Your task to perform on an android device: Go to accessibility settings Image 0: 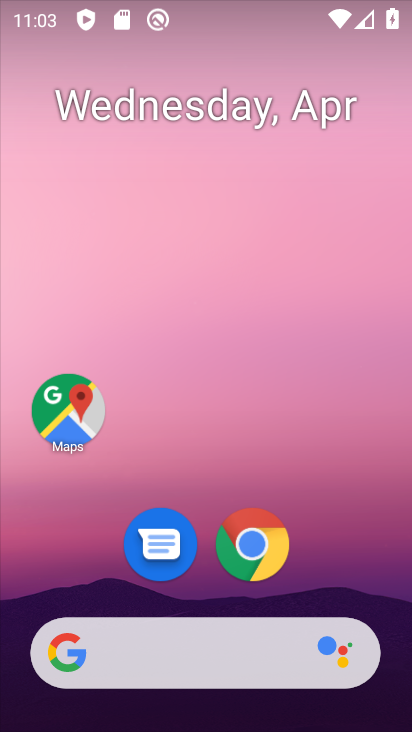
Step 0: drag from (194, 601) to (336, 47)
Your task to perform on an android device: Go to accessibility settings Image 1: 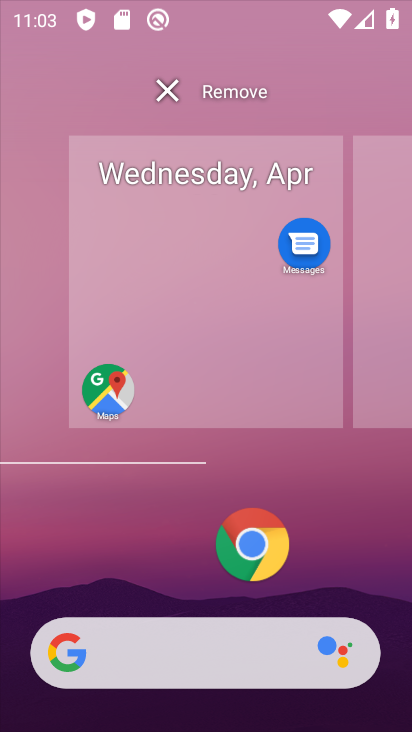
Step 1: drag from (205, 596) to (355, 89)
Your task to perform on an android device: Go to accessibility settings Image 2: 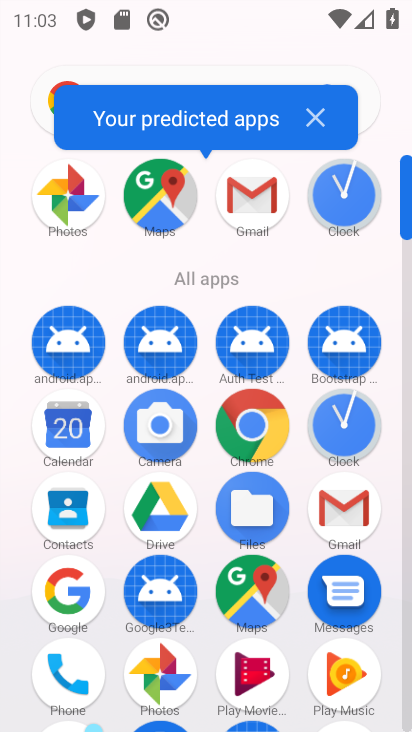
Step 2: drag from (106, 606) to (34, 139)
Your task to perform on an android device: Go to accessibility settings Image 3: 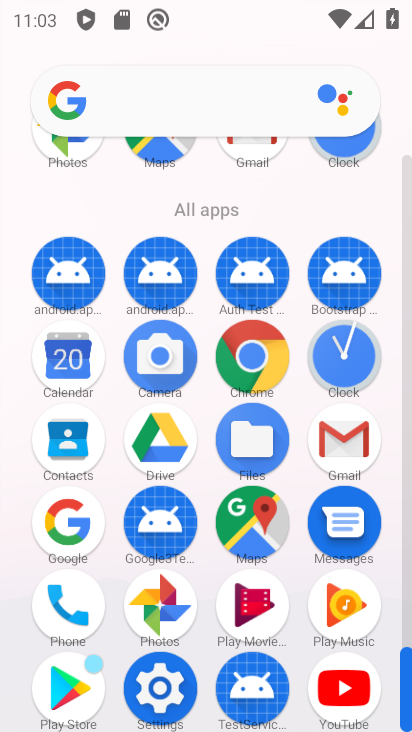
Step 3: click (156, 659)
Your task to perform on an android device: Go to accessibility settings Image 4: 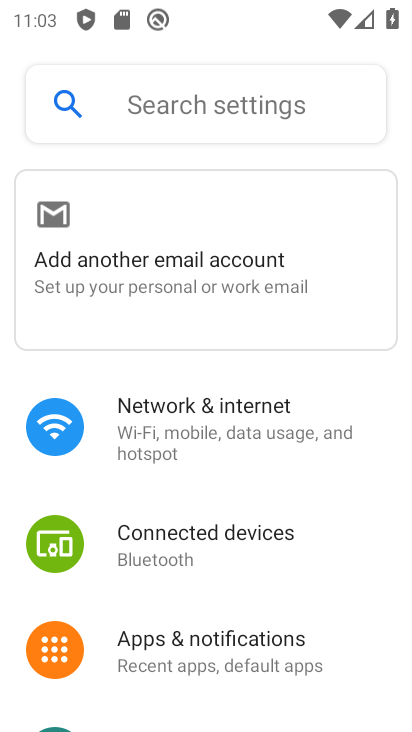
Step 4: drag from (181, 590) to (163, 49)
Your task to perform on an android device: Go to accessibility settings Image 5: 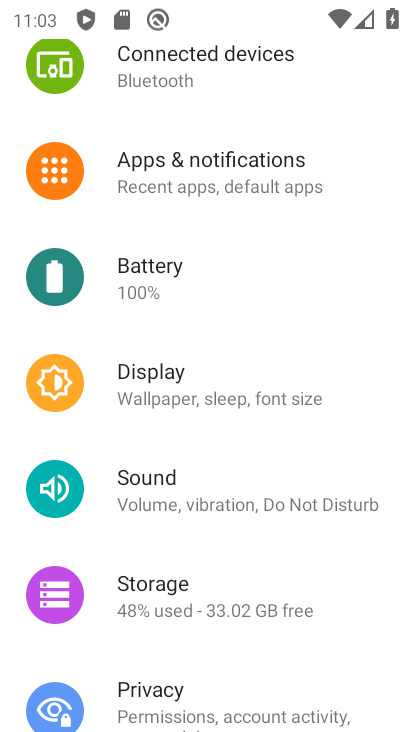
Step 5: drag from (282, 609) to (256, 136)
Your task to perform on an android device: Go to accessibility settings Image 6: 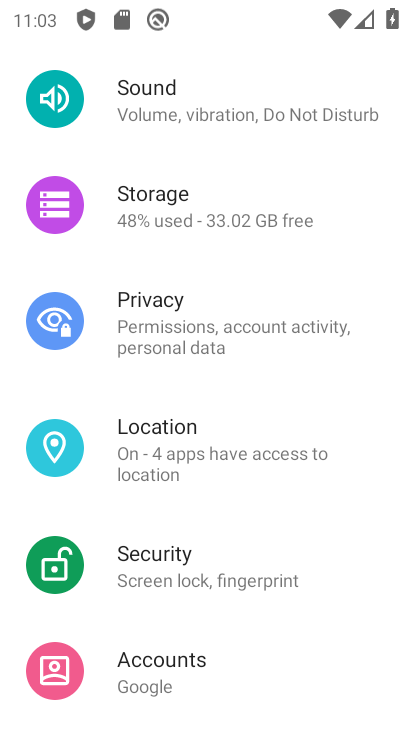
Step 6: drag from (206, 649) to (182, 149)
Your task to perform on an android device: Go to accessibility settings Image 7: 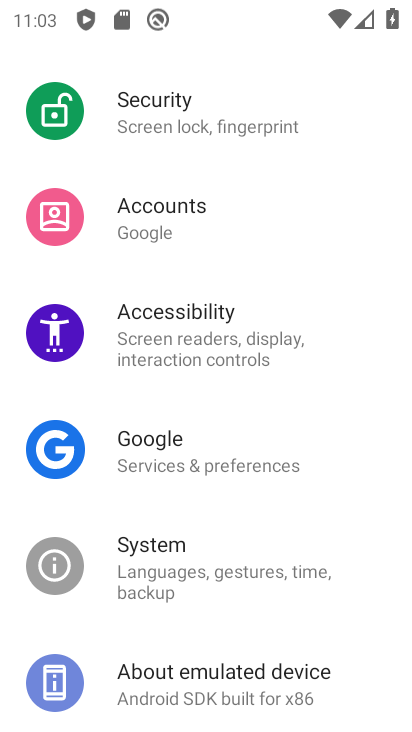
Step 7: click (188, 347)
Your task to perform on an android device: Go to accessibility settings Image 8: 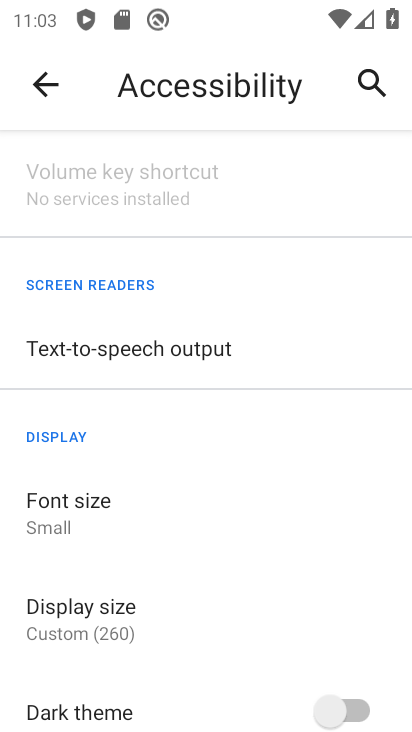
Step 8: task complete